Your task to perform on an android device: Open network settings Image 0: 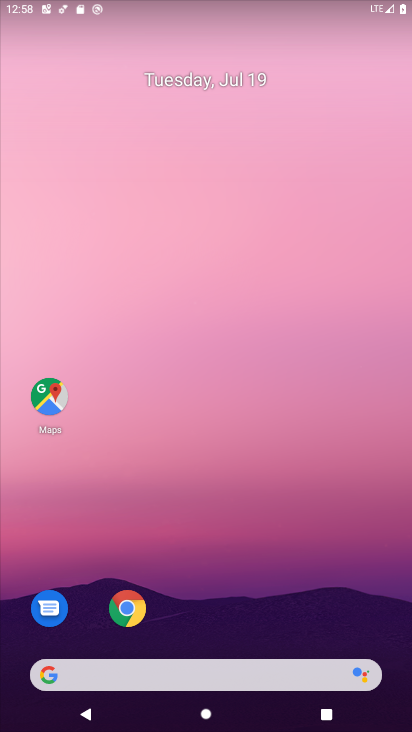
Step 0: drag from (308, 590) to (277, 142)
Your task to perform on an android device: Open network settings Image 1: 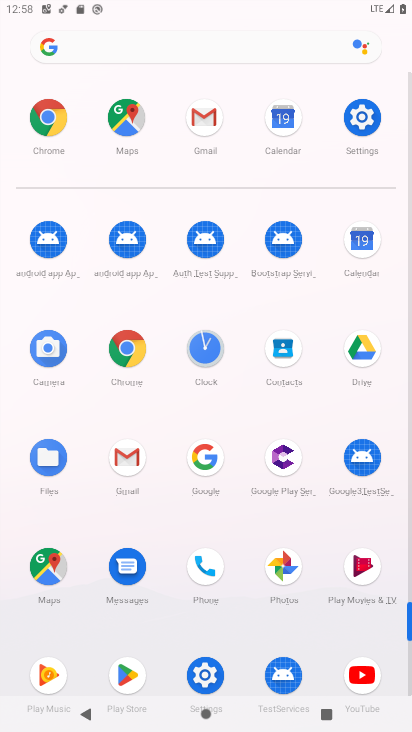
Step 1: click (197, 681)
Your task to perform on an android device: Open network settings Image 2: 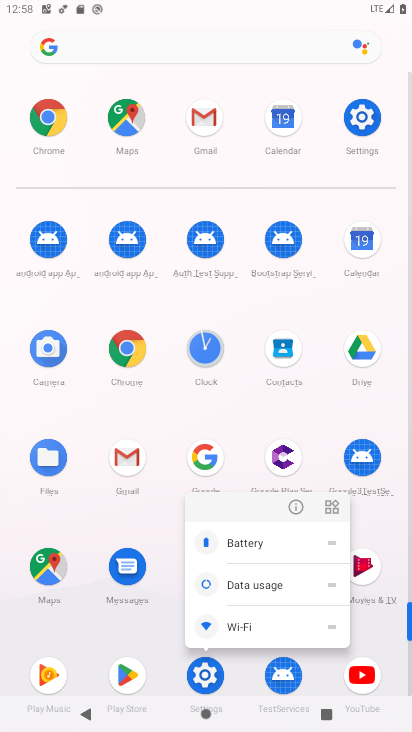
Step 2: click (204, 676)
Your task to perform on an android device: Open network settings Image 3: 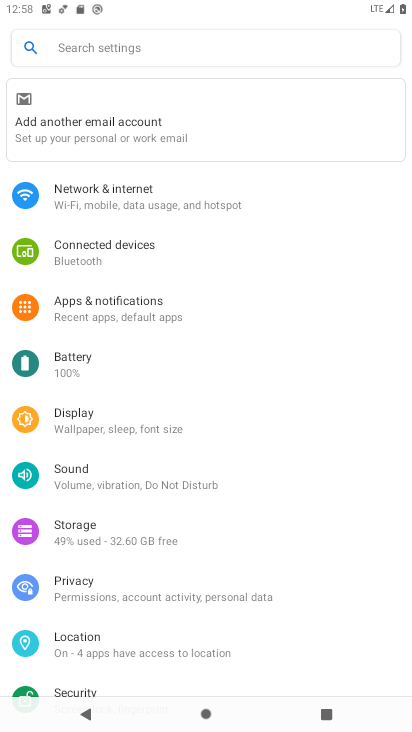
Step 3: click (116, 192)
Your task to perform on an android device: Open network settings Image 4: 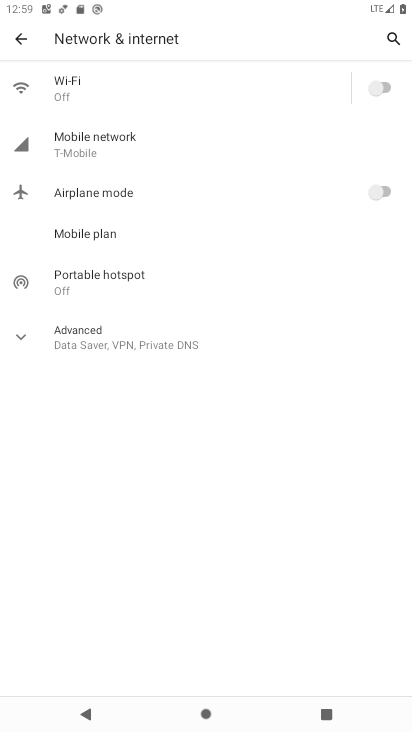
Step 4: click (123, 156)
Your task to perform on an android device: Open network settings Image 5: 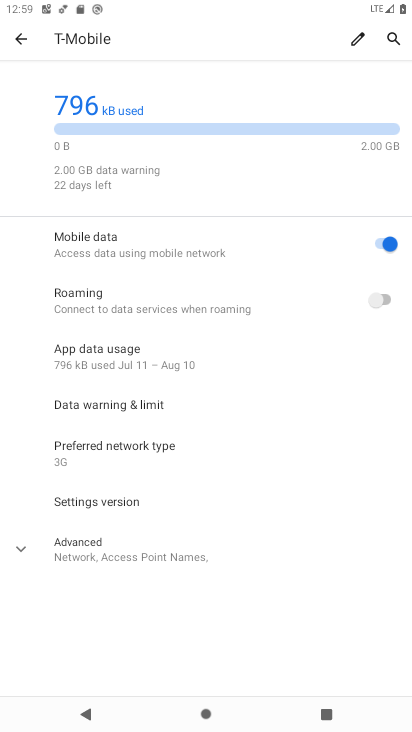
Step 5: click (155, 559)
Your task to perform on an android device: Open network settings Image 6: 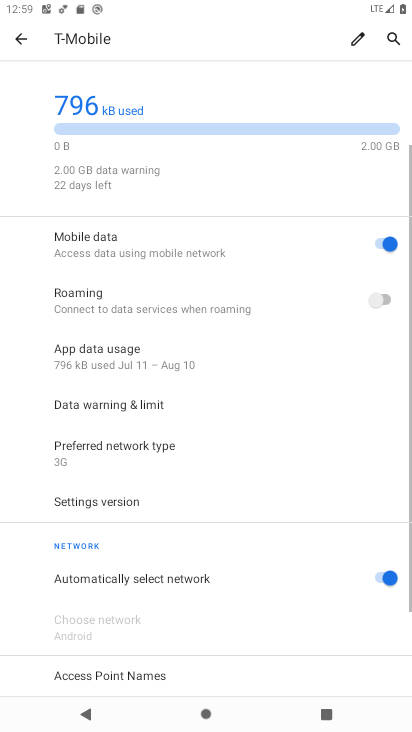
Step 6: task complete